Your task to perform on an android device: Open CNN.com Image 0: 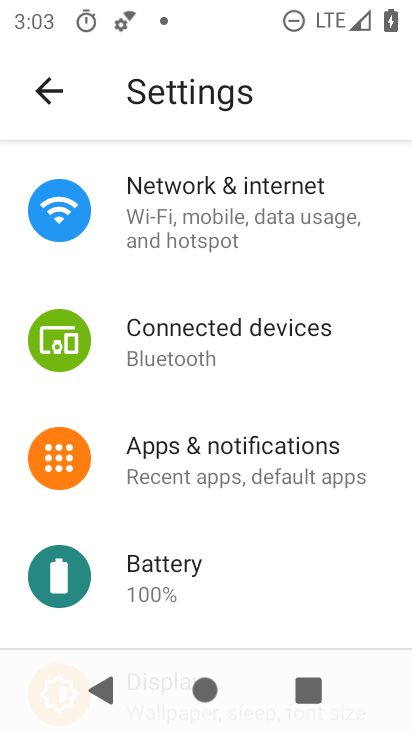
Step 0: press home button
Your task to perform on an android device: Open CNN.com Image 1: 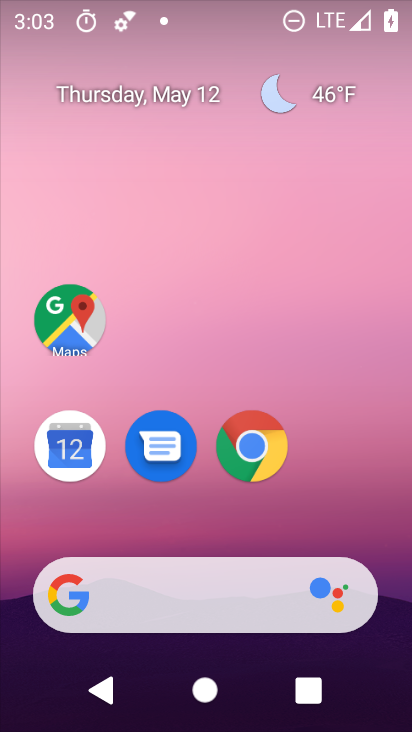
Step 1: click (267, 447)
Your task to perform on an android device: Open CNN.com Image 2: 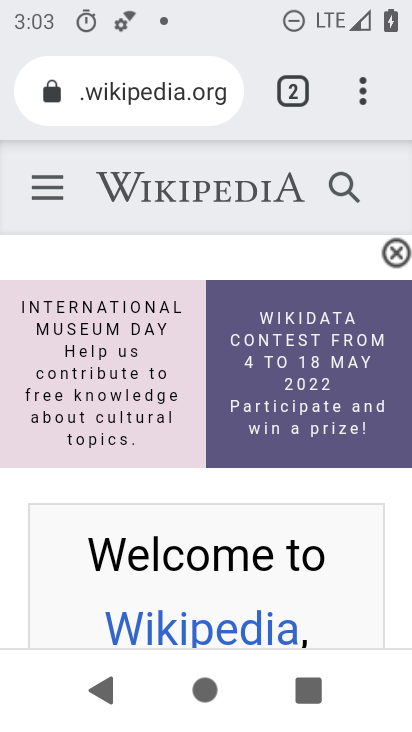
Step 2: press home button
Your task to perform on an android device: Open CNN.com Image 3: 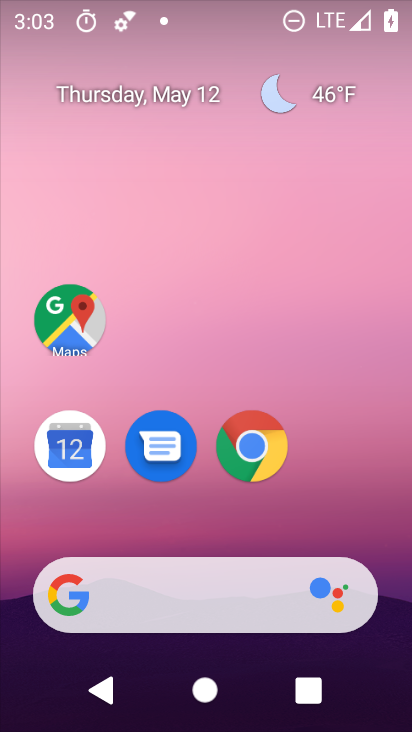
Step 3: click (249, 449)
Your task to perform on an android device: Open CNN.com Image 4: 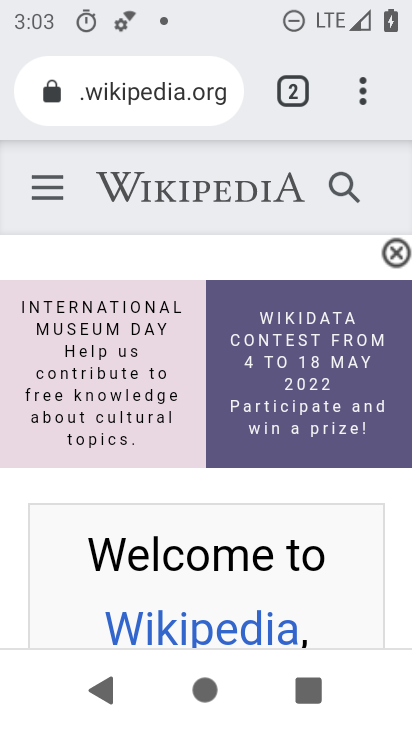
Step 4: click (303, 91)
Your task to perform on an android device: Open CNN.com Image 5: 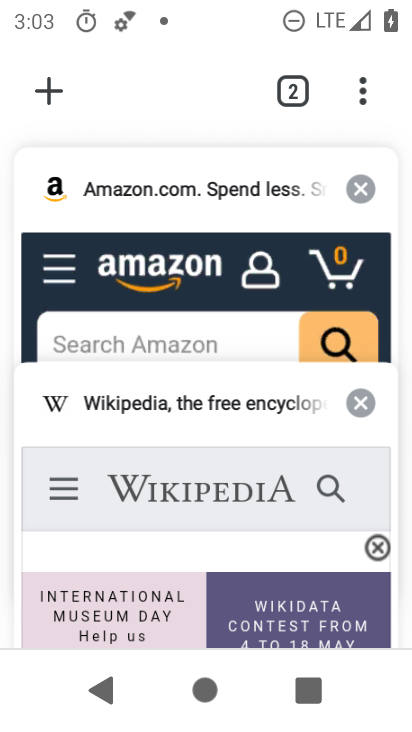
Step 5: click (48, 86)
Your task to perform on an android device: Open CNN.com Image 6: 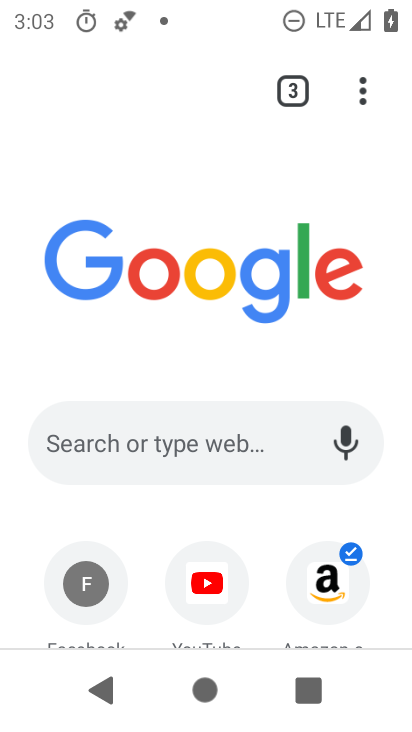
Step 6: type "CNN.com"
Your task to perform on an android device: Open CNN.com Image 7: 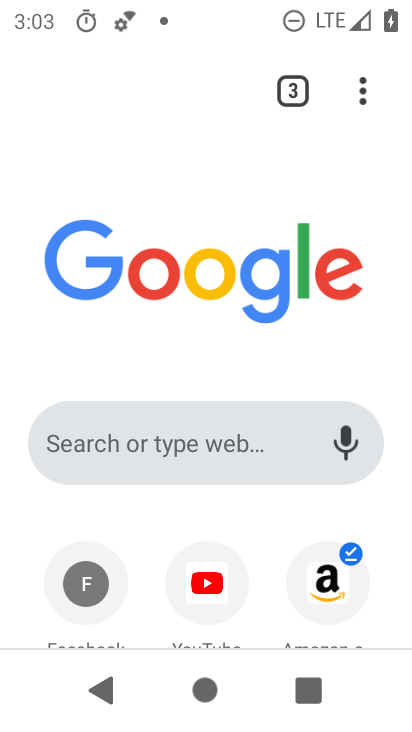
Step 7: click (198, 446)
Your task to perform on an android device: Open CNN.com Image 8: 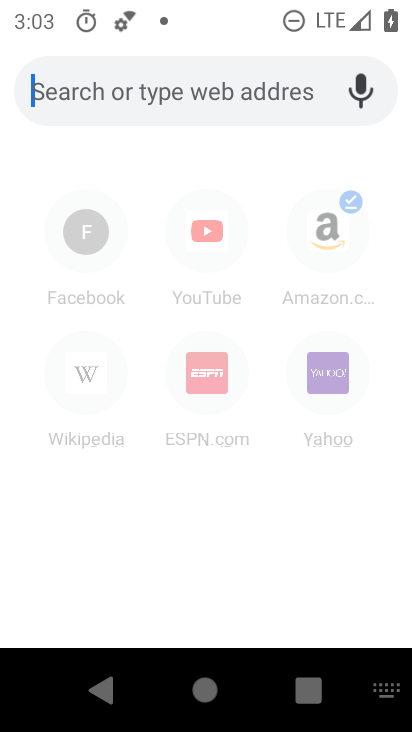
Step 8: type "CNN.com"
Your task to perform on an android device: Open CNN.com Image 9: 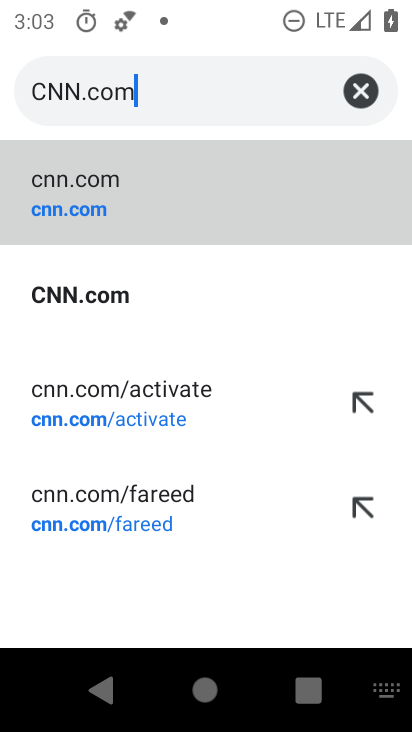
Step 9: click (123, 182)
Your task to perform on an android device: Open CNN.com Image 10: 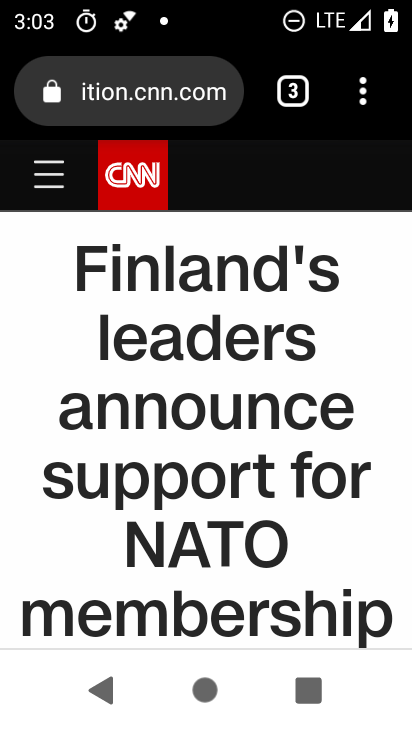
Step 10: task complete